Your task to perform on an android device: turn on data saver in the chrome app Image 0: 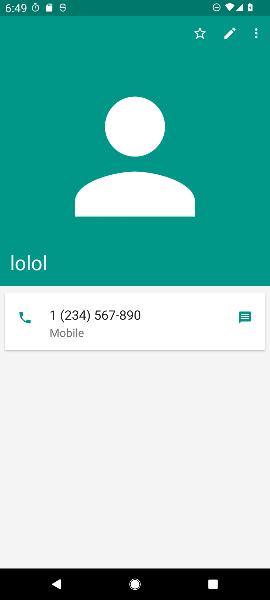
Step 0: press home button
Your task to perform on an android device: turn on data saver in the chrome app Image 1: 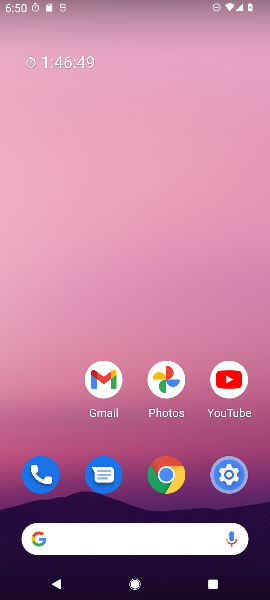
Step 1: drag from (68, 437) to (59, 206)
Your task to perform on an android device: turn on data saver in the chrome app Image 2: 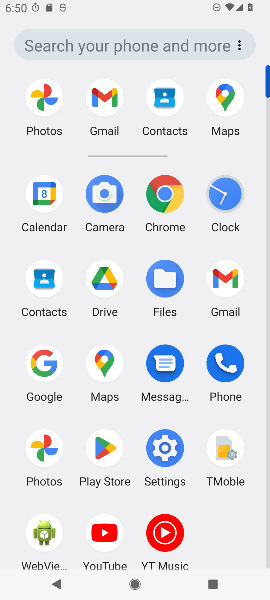
Step 2: click (167, 193)
Your task to perform on an android device: turn on data saver in the chrome app Image 3: 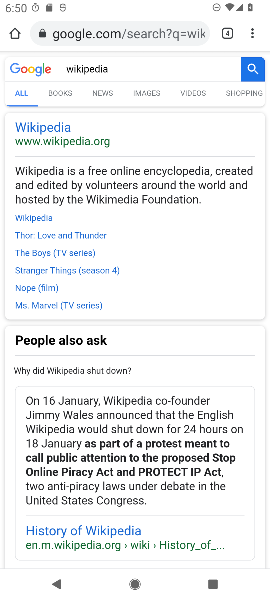
Step 3: click (254, 35)
Your task to perform on an android device: turn on data saver in the chrome app Image 4: 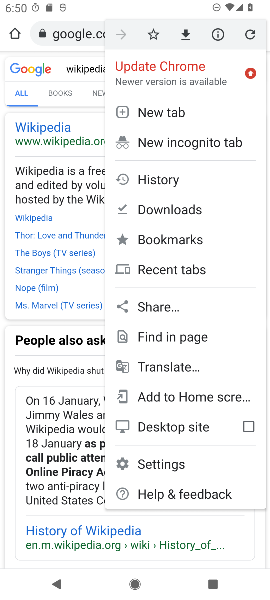
Step 4: click (175, 464)
Your task to perform on an android device: turn on data saver in the chrome app Image 5: 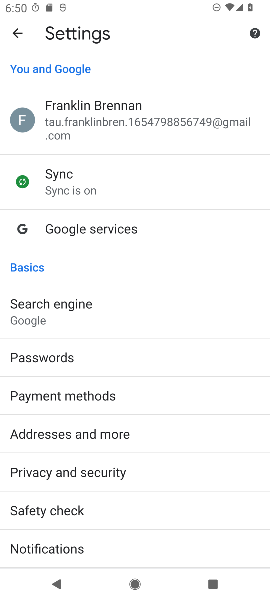
Step 5: drag from (194, 444) to (196, 315)
Your task to perform on an android device: turn on data saver in the chrome app Image 6: 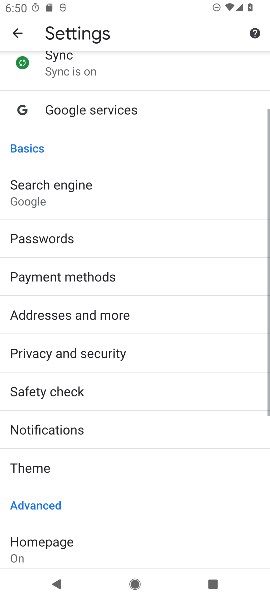
Step 6: drag from (191, 441) to (201, 324)
Your task to perform on an android device: turn on data saver in the chrome app Image 7: 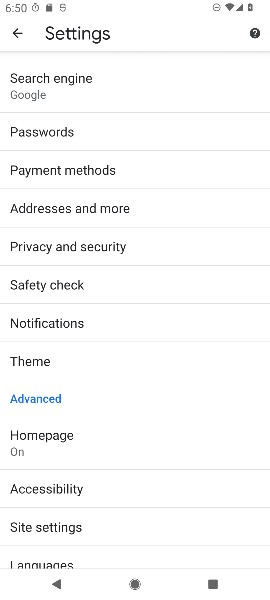
Step 7: drag from (183, 486) to (196, 358)
Your task to perform on an android device: turn on data saver in the chrome app Image 8: 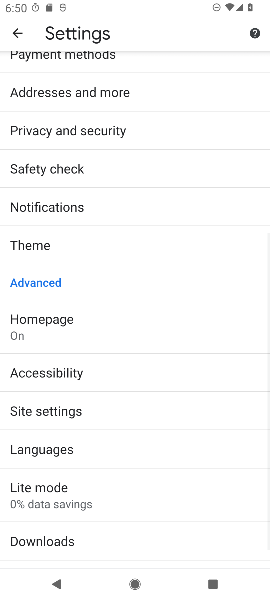
Step 8: drag from (177, 491) to (189, 333)
Your task to perform on an android device: turn on data saver in the chrome app Image 9: 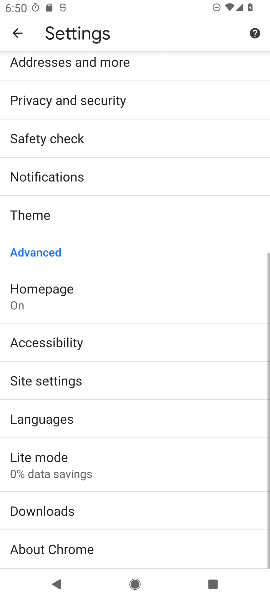
Step 9: drag from (166, 442) to (173, 339)
Your task to perform on an android device: turn on data saver in the chrome app Image 10: 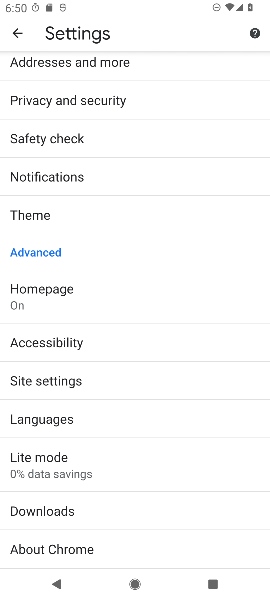
Step 10: click (75, 471)
Your task to perform on an android device: turn on data saver in the chrome app Image 11: 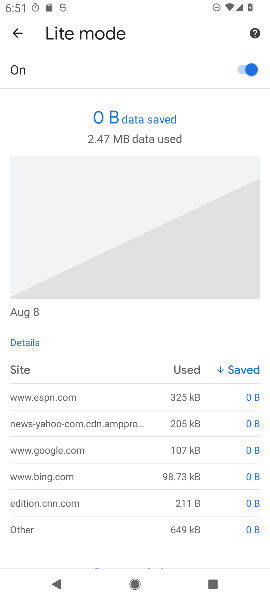
Step 11: task complete